Your task to perform on an android device: show emergency info Image 0: 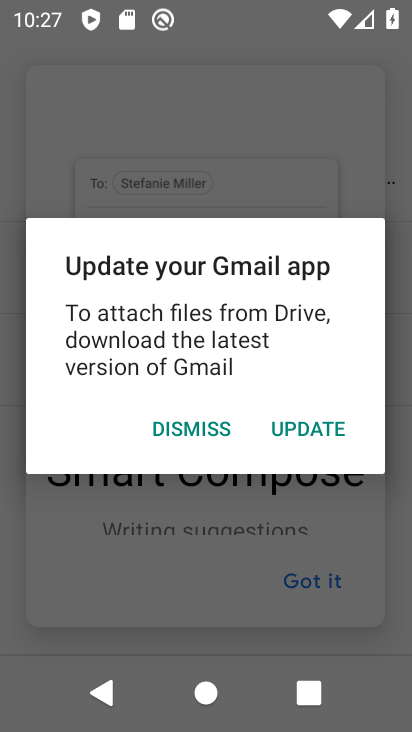
Step 0: drag from (323, 467) to (294, 84)
Your task to perform on an android device: show emergency info Image 1: 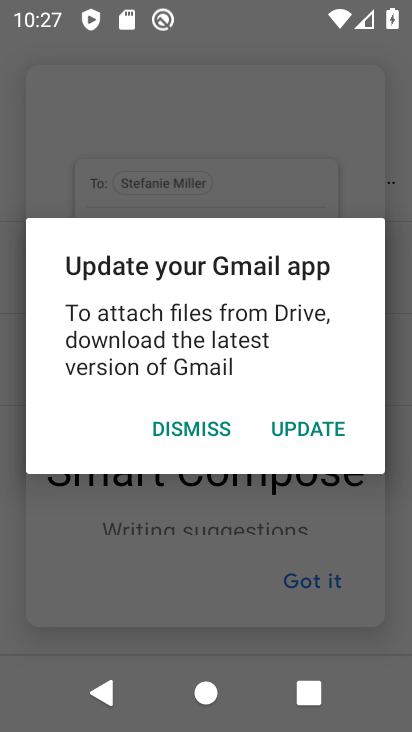
Step 1: press home button
Your task to perform on an android device: show emergency info Image 2: 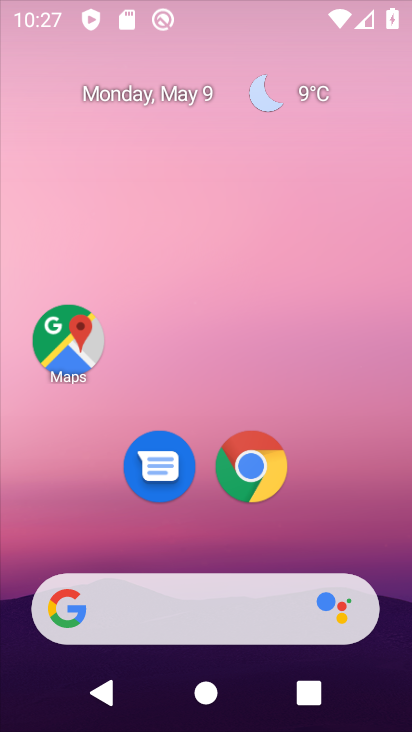
Step 2: drag from (319, 544) to (294, 59)
Your task to perform on an android device: show emergency info Image 3: 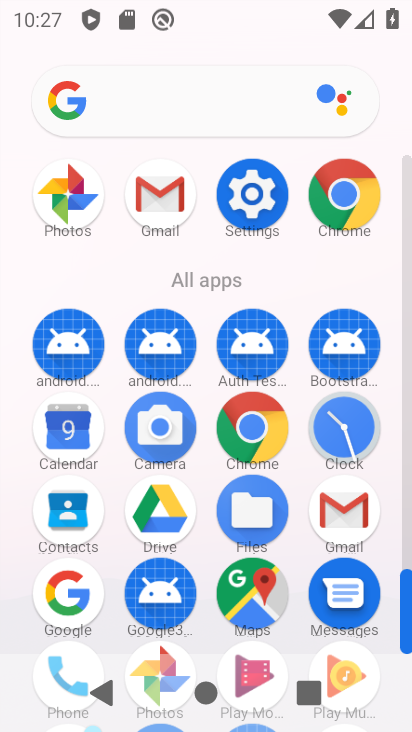
Step 3: click (252, 185)
Your task to perform on an android device: show emergency info Image 4: 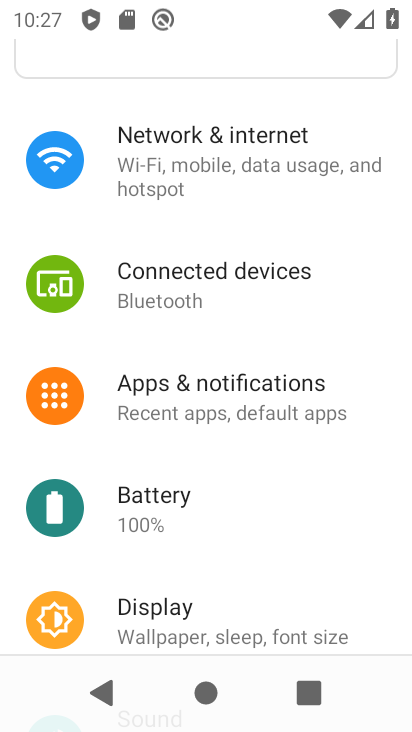
Step 4: drag from (228, 484) to (189, 8)
Your task to perform on an android device: show emergency info Image 5: 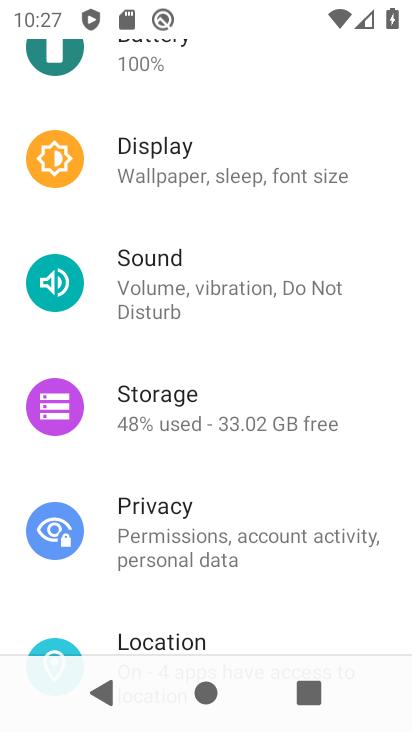
Step 5: drag from (183, 347) to (167, 5)
Your task to perform on an android device: show emergency info Image 6: 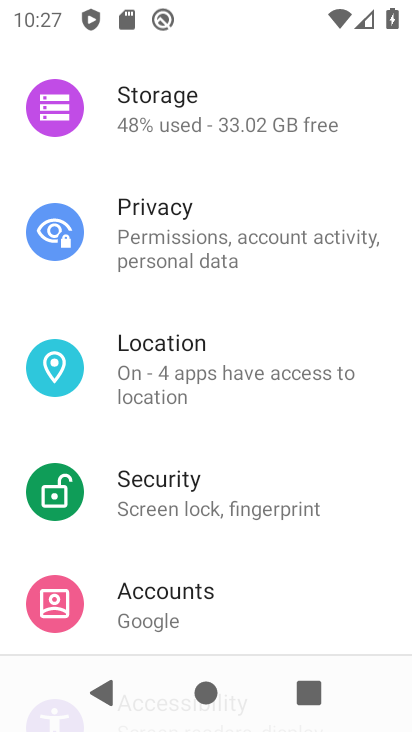
Step 6: drag from (175, 486) to (141, 7)
Your task to perform on an android device: show emergency info Image 7: 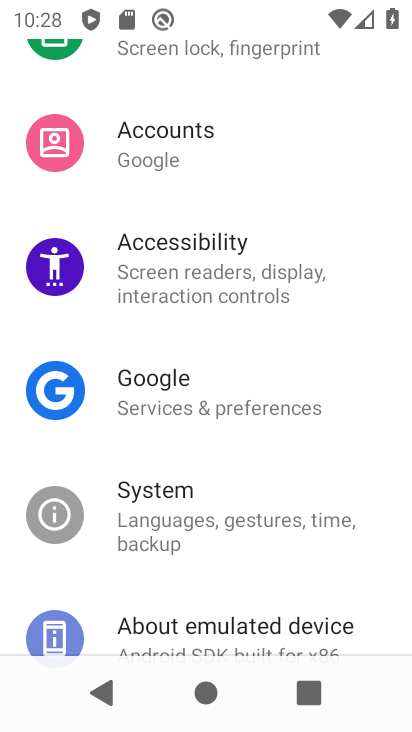
Step 7: drag from (207, 467) to (175, 8)
Your task to perform on an android device: show emergency info Image 8: 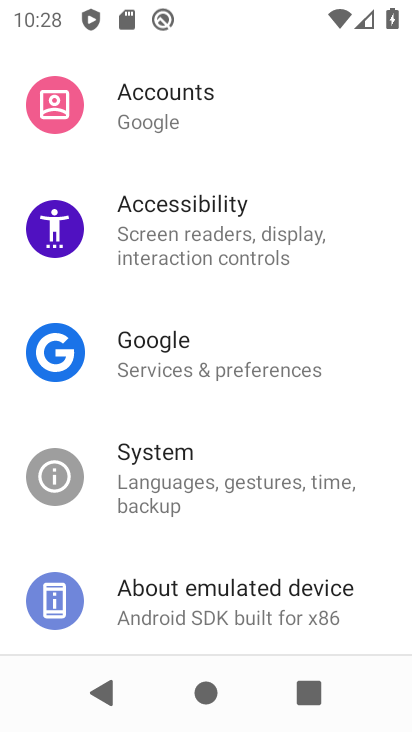
Step 8: click (184, 588)
Your task to perform on an android device: show emergency info Image 9: 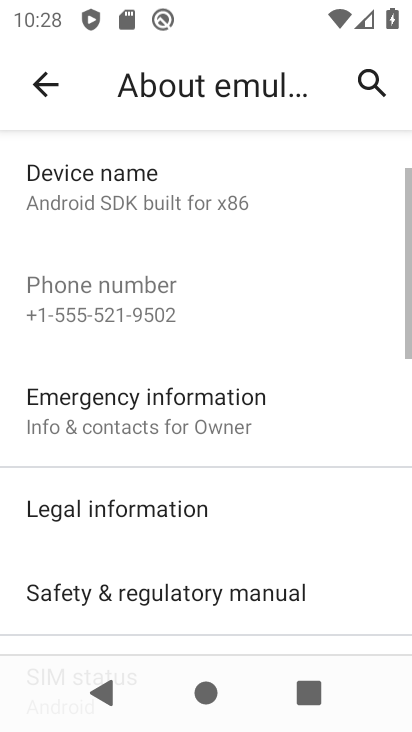
Step 9: click (193, 438)
Your task to perform on an android device: show emergency info Image 10: 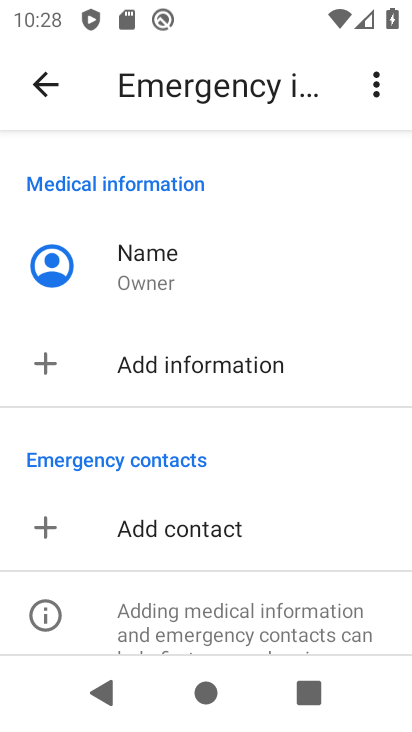
Step 10: task complete